Your task to perform on an android device: all mails in gmail Image 0: 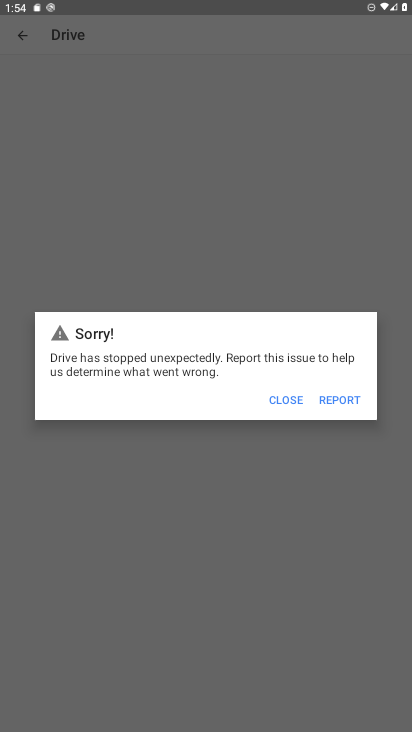
Step 0: press home button
Your task to perform on an android device: all mails in gmail Image 1: 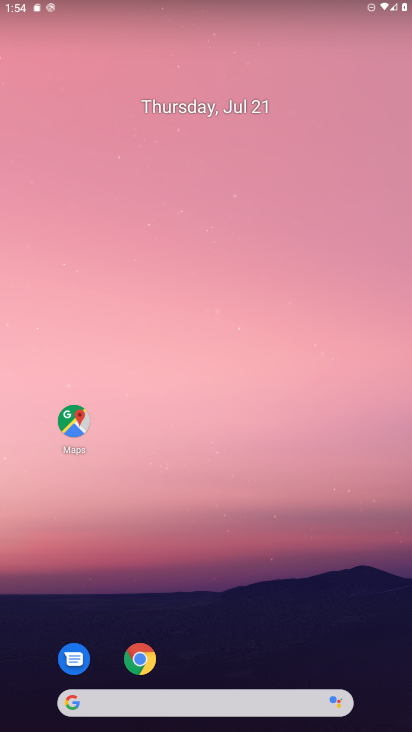
Step 1: drag from (22, 626) to (207, 143)
Your task to perform on an android device: all mails in gmail Image 2: 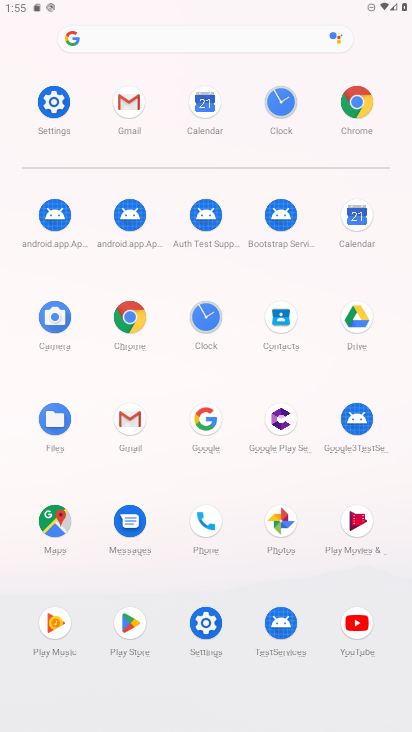
Step 2: click (120, 107)
Your task to perform on an android device: all mails in gmail Image 3: 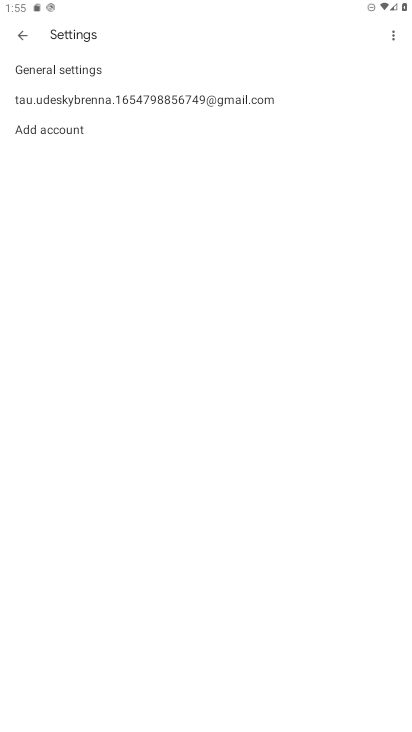
Step 3: click (66, 96)
Your task to perform on an android device: all mails in gmail Image 4: 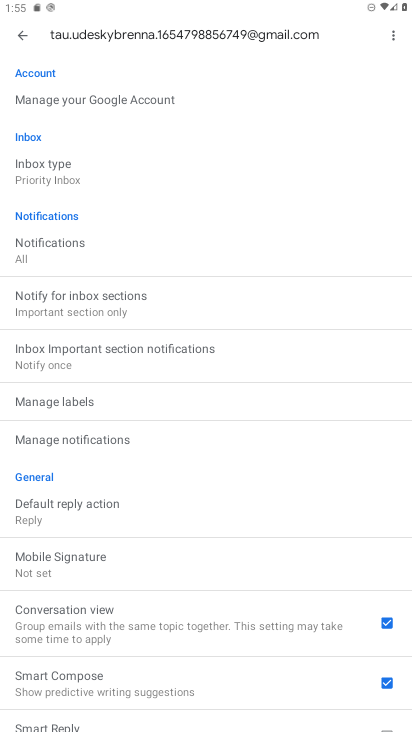
Step 4: click (15, 43)
Your task to perform on an android device: all mails in gmail Image 5: 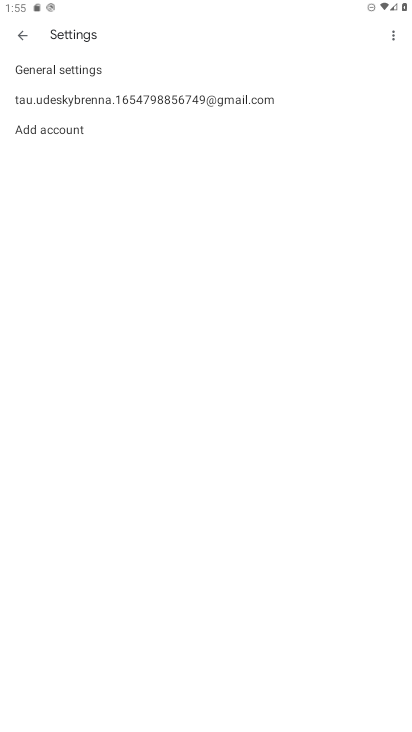
Step 5: click (66, 61)
Your task to perform on an android device: all mails in gmail Image 6: 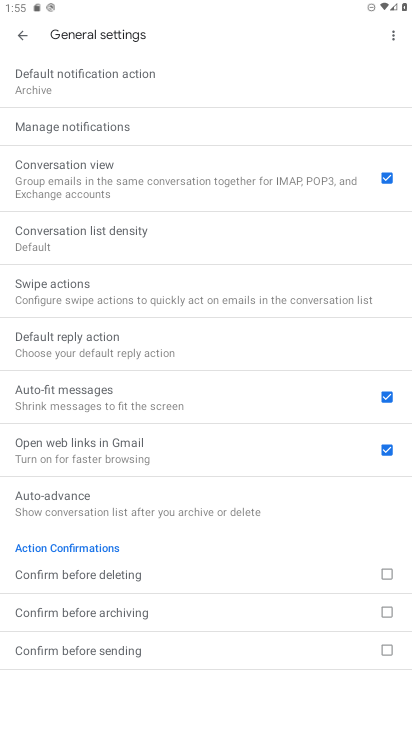
Step 6: click (22, 39)
Your task to perform on an android device: all mails in gmail Image 7: 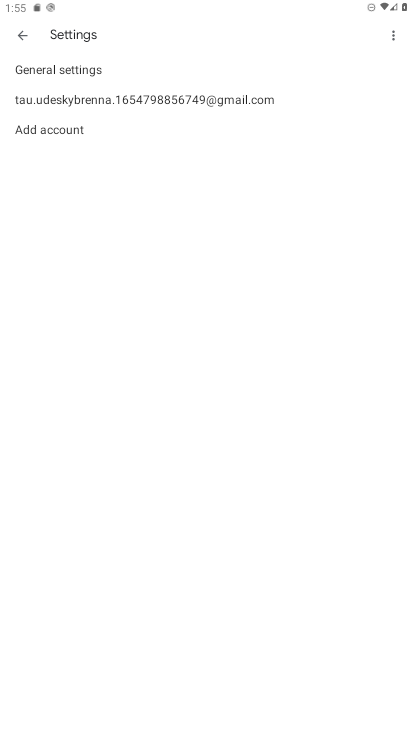
Step 7: click (22, 39)
Your task to perform on an android device: all mails in gmail Image 8: 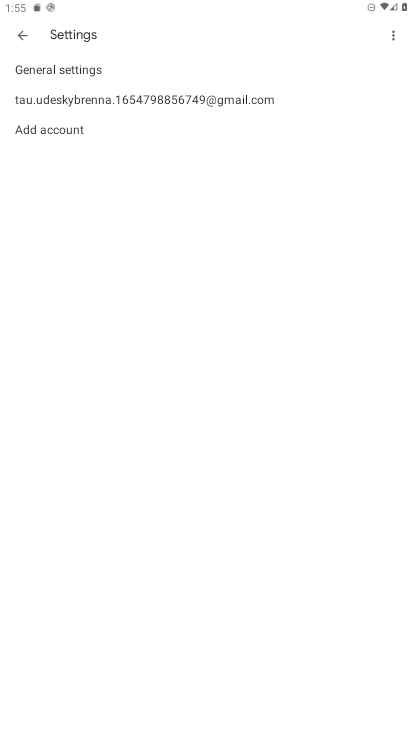
Step 8: click (23, 40)
Your task to perform on an android device: all mails in gmail Image 9: 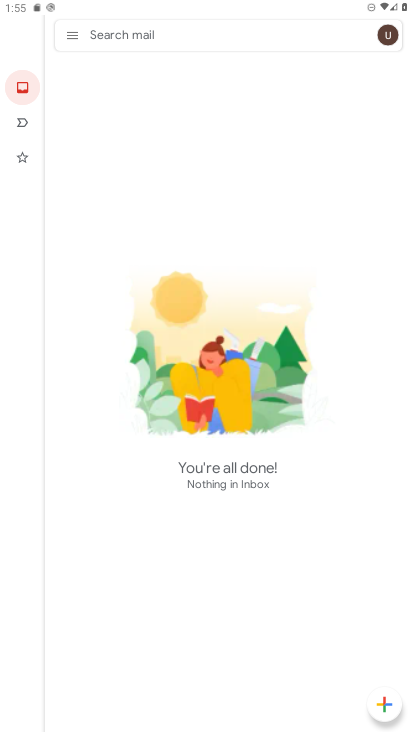
Step 9: click (30, 89)
Your task to perform on an android device: all mails in gmail Image 10: 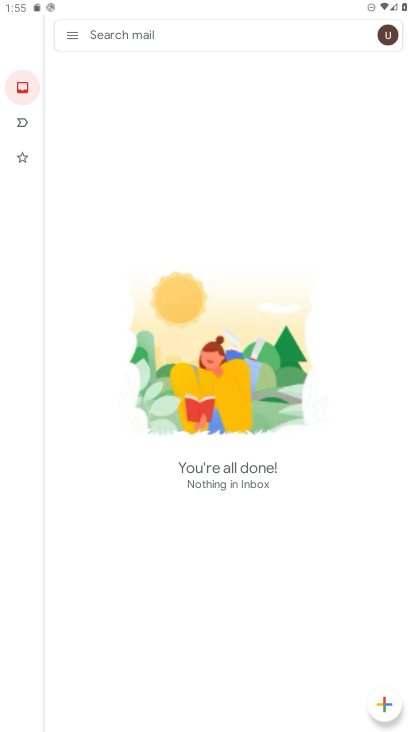
Step 10: click (75, 32)
Your task to perform on an android device: all mails in gmail Image 11: 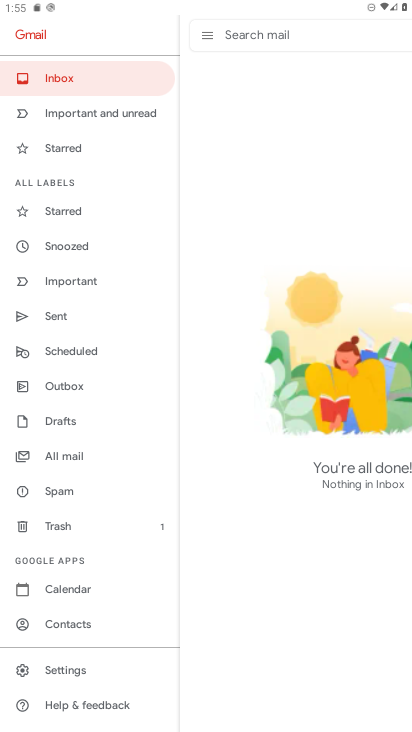
Step 11: click (62, 81)
Your task to perform on an android device: all mails in gmail Image 12: 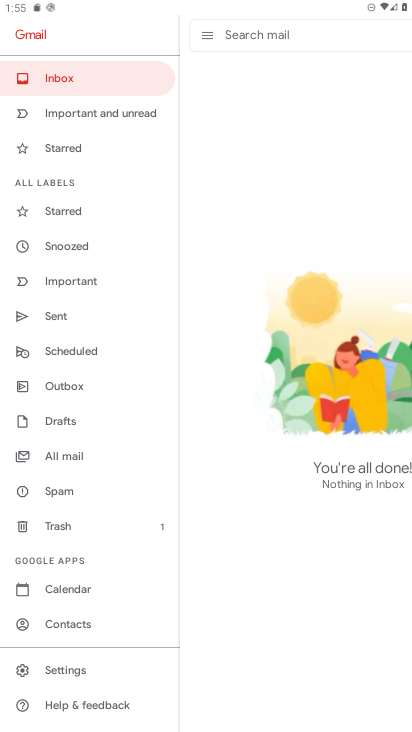
Step 12: task complete